Your task to perform on an android device: search for starred emails in the gmail app Image 0: 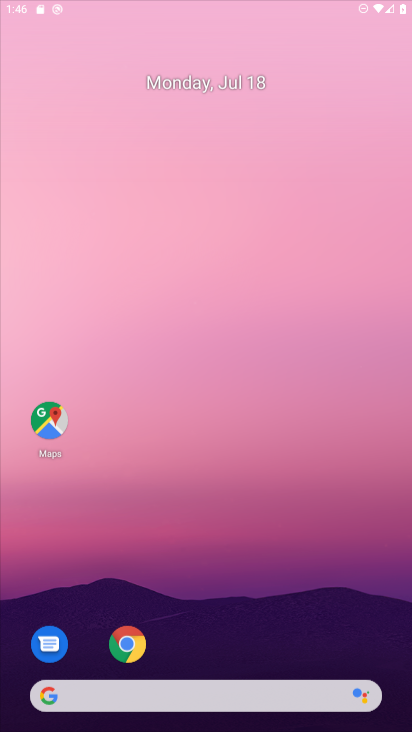
Step 0: press home button
Your task to perform on an android device: search for starred emails in the gmail app Image 1: 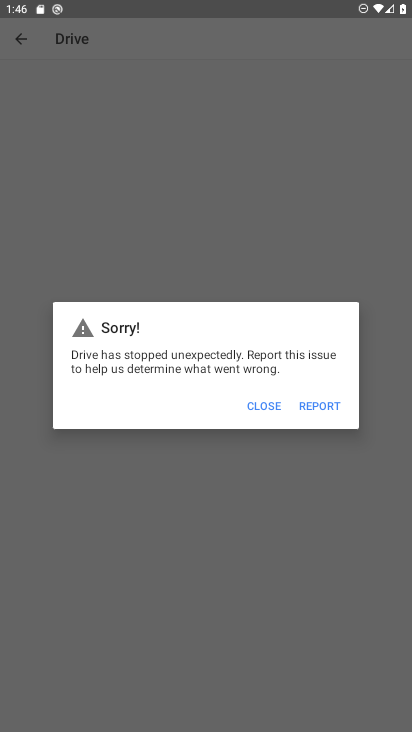
Step 1: click (142, 9)
Your task to perform on an android device: search for starred emails in the gmail app Image 2: 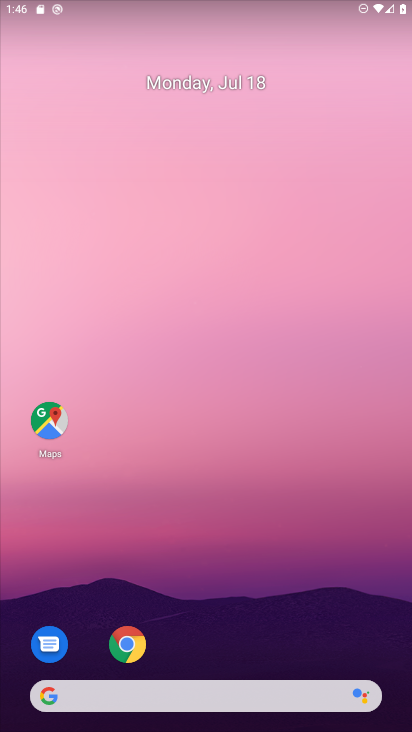
Step 2: drag from (267, 635) to (238, 127)
Your task to perform on an android device: search for starred emails in the gmail app Image 3: 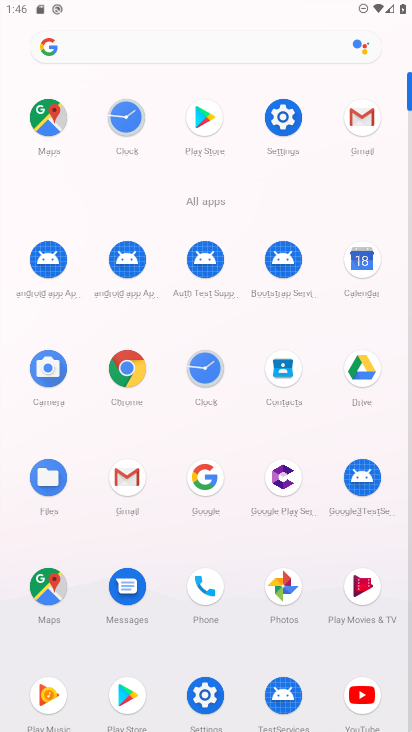
Step 3: click (123, 482)
Your task to perform on an android device: search for starred emails in the gmail app Image 4: 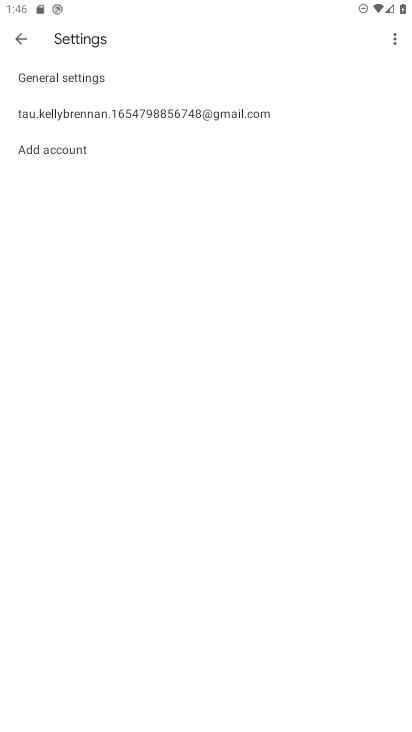
Step 4: click (127, 110)
Your task to perform on an android device: search for starred emails in the gmail app Image 5: 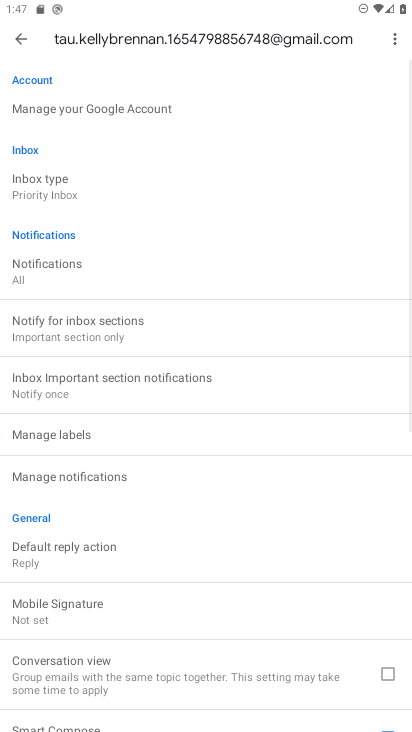
Step 5: click (27, 46)
Your task to perform on an android device: search for starred emails in the gmail app Image 6: 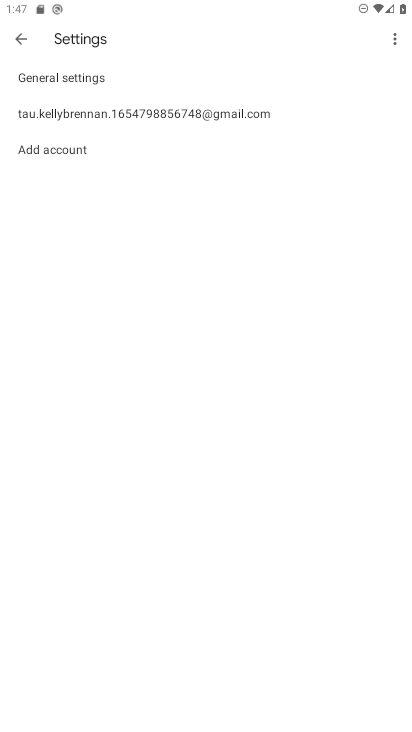
Step 6: click (27, 46)
Your task to perform on an android device: search for starred emails in the gmail app Image 7: 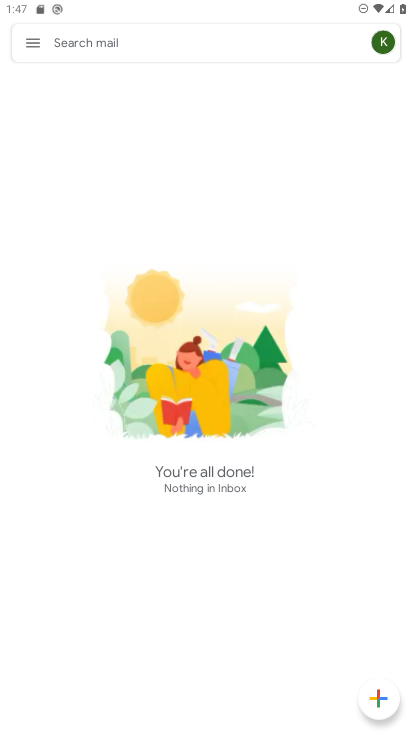
Step 7: click (31, 48)
Your task to perform on an android device: search for starred emails in the gmail app Image 8: 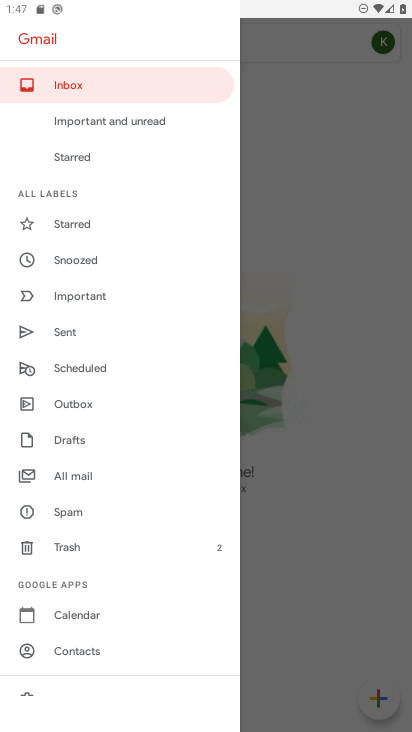
Step 8: click (88, 155)
Your task to perform on an android device: search for starred emails in the gmail app Image 9: 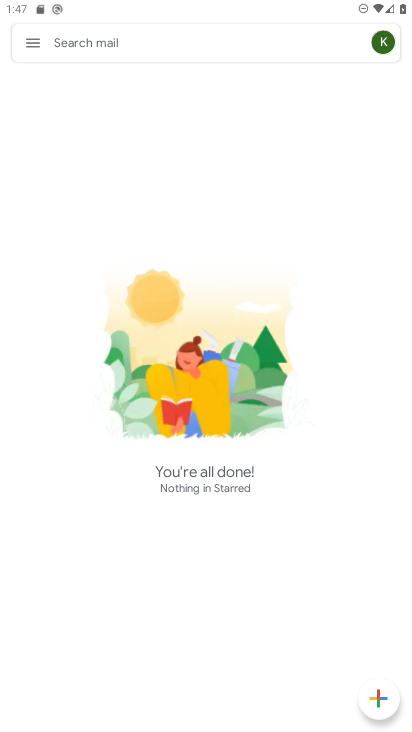
Step 9: task complete